Your task to perform on an android device: Open the web browser Image 0: 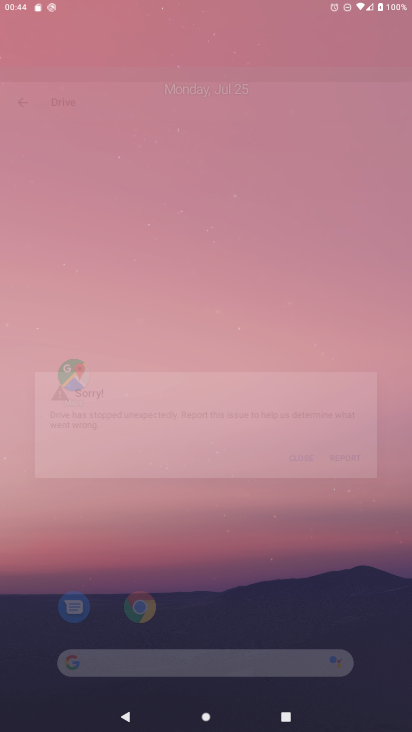
Step 0: click (241, 228)
Your task to perform on an android device: Open the web browser Image 1: 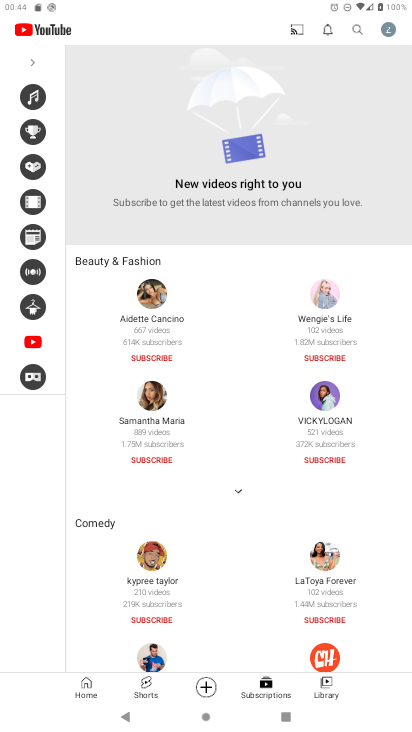
Step 1: drag from (235, 630) to (238, 309)
Your task to perform on an android device: Open the web browser Image 2: 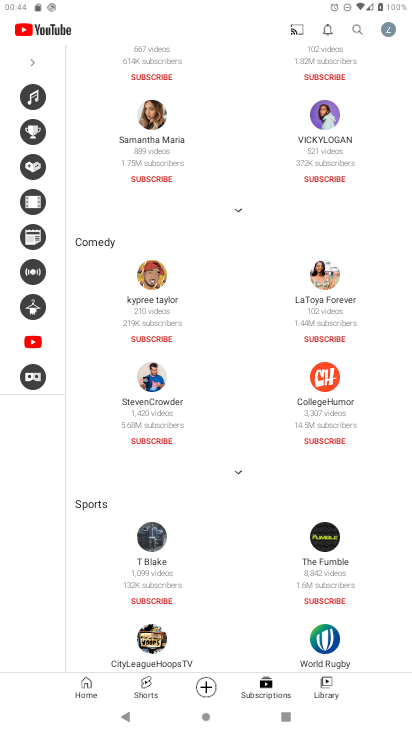
Step 2: drag from (251, 554) to (251, 214)
Your task to perform on an android device: Open the web browser Image 3: 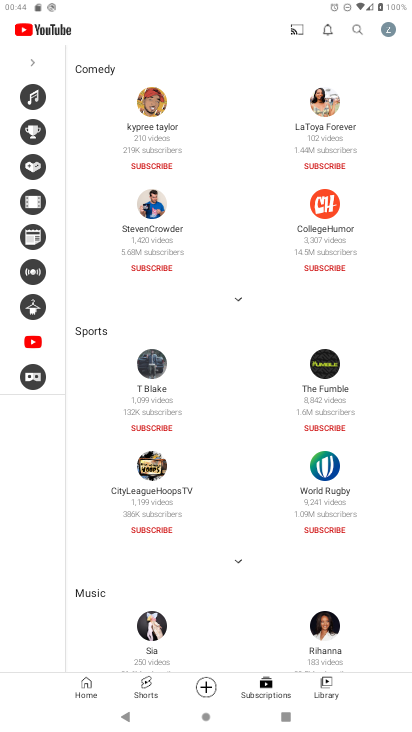
Step 3: press home button
Your task to perform on an android device: Open the web browser Image 4: 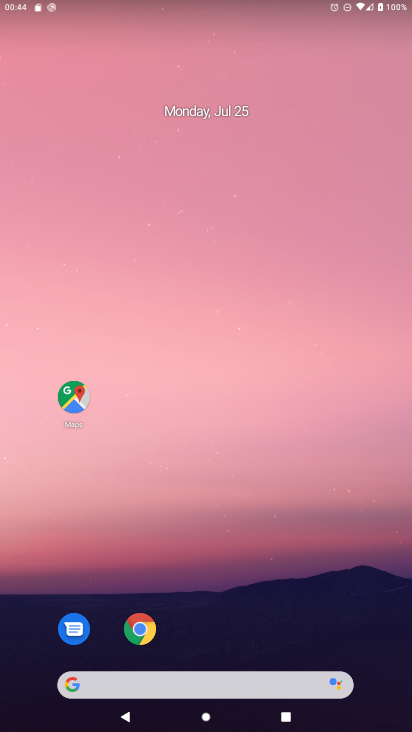
Step 4: drag from (167, 629) to (238, 163)
Your task to perform on an android device: Open the web browser Image 5: 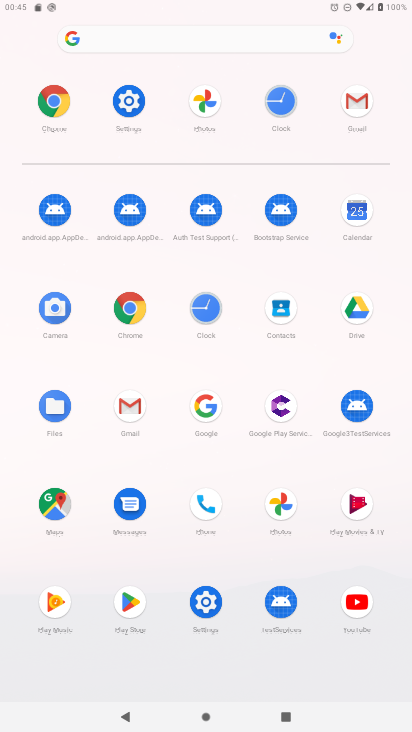
Step 5: click (47, 107)
Your task to perform on an android device: Open the web browser Image 6: 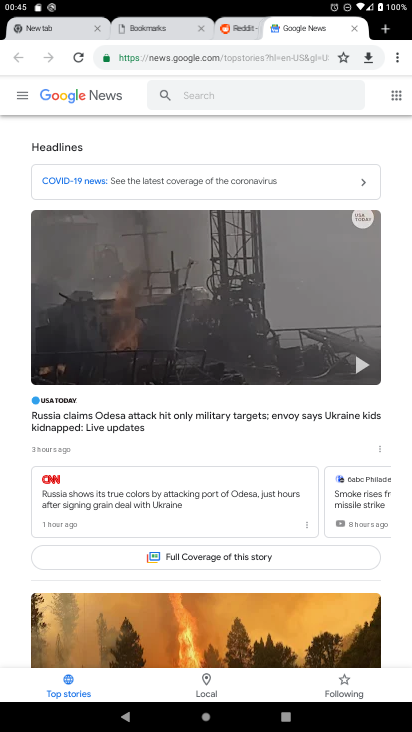
Step 6: task complete